Your task to perform on an android device: Add rayovac triple a to the cart on amazon Image 0: 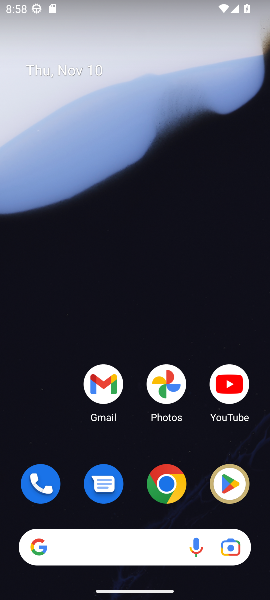
Step 0: click (163, 486)
Your task to perform on an android device: Add rayovac triple a to the cart on amazon Image 1: 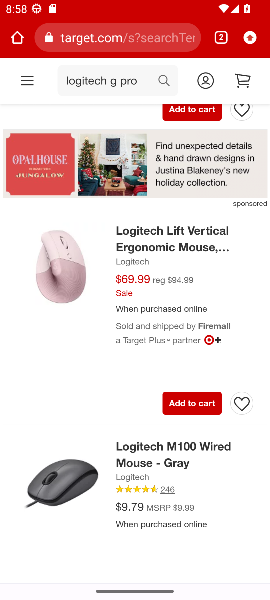
Step 1: click (98, 45)
Your task to perform on an android device: Add rayovac triple a to the cart on amazon Image 2: 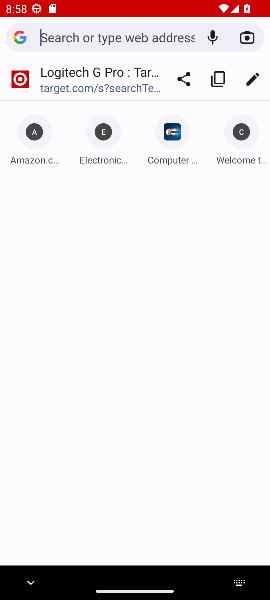
Step 2: click (29, 144)
Your task to perform on an android device: Add rayovac triple a to the cart on amazon Image 3: 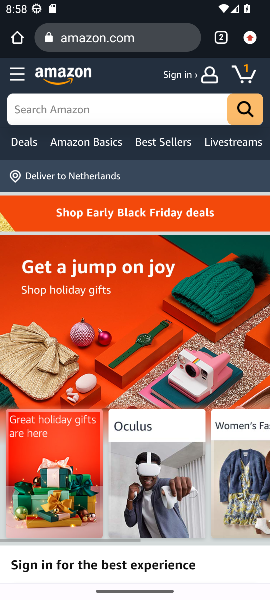
Step 3: click (80, 108)
Your task to perform on an android device: Add rayovac triple a to the cart on amazon Image 4: 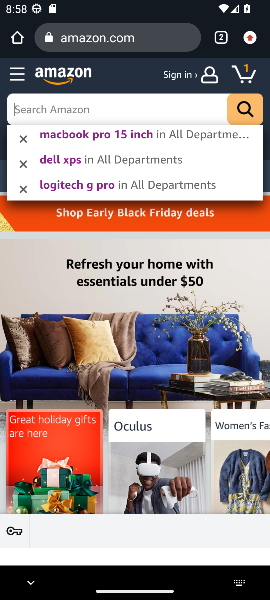
Step 4: type "rayovac triple a"
Your task to perform on an android device: Add rayovac triple a to the cart on amazon Image 5: 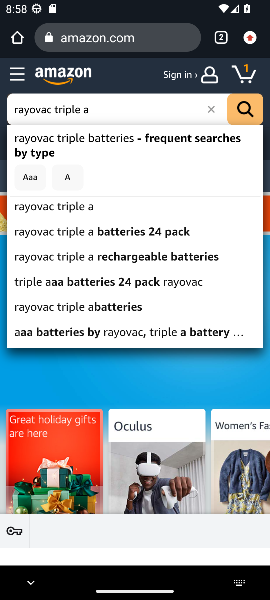
Step 5: click (66, 207)
Your task to perform on an android device: Add rayovac triple a to the cart on amazon Image 6: 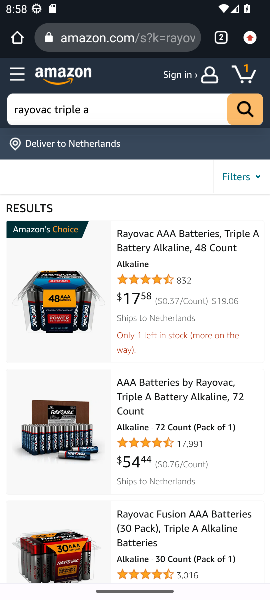
Step 6: click (88, 306)
Your task to perform on an android device: Add rayovac triple a to the cart on amazon Image 7: 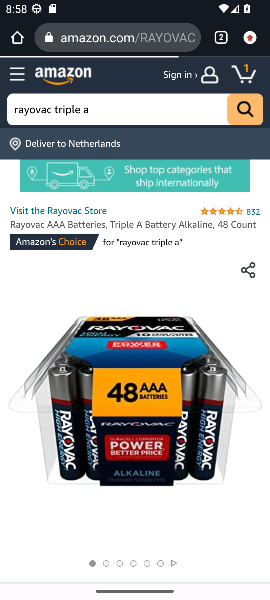
Step 7: drag from (96, 460) to (85, 215)
Your task to perform on an android device: Add rayovac triple a to the cart on amazon Image 8: 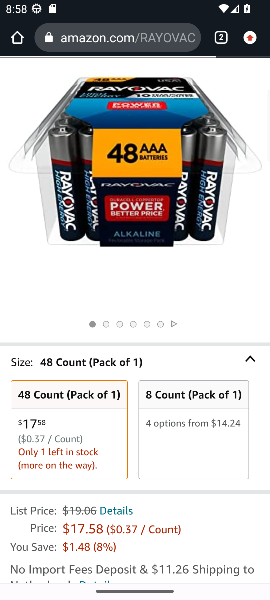
Step 8: drag from (58, 462) to (65, 264)
Your task to perform on an android device: Add rayovac triple a to the cart on amazon Image 9: 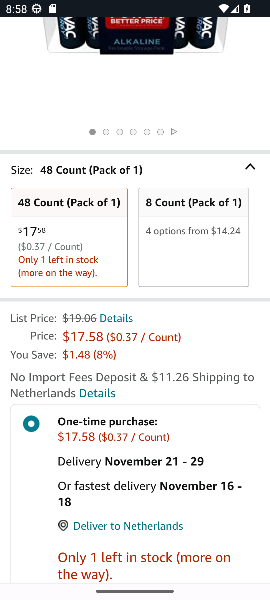
Step 9: drag from (94, 431) to (103, 222)
Your task to perform on an android device: Add rayovac triple a to the cart on amazon Image 10: 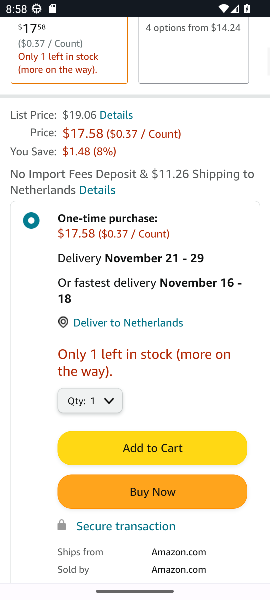
Step 10: click (127, 443)
Your task to perform on an android device: Add rayovac triple a to the cart on amazon Image 11: 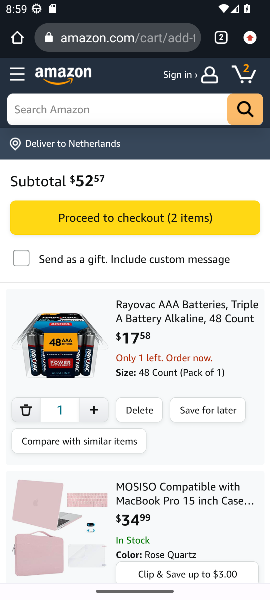
Step 11: task complete